Your task to perform on an android device: turn off location Image 0: 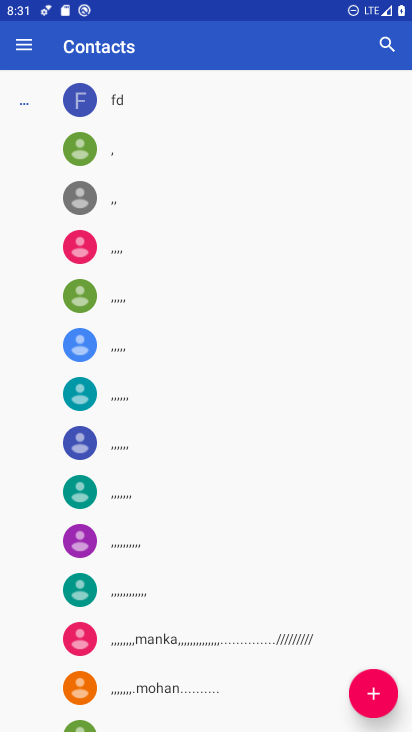
Step 0: press home button
Your task to perform on an android device: turn off location Image 1: 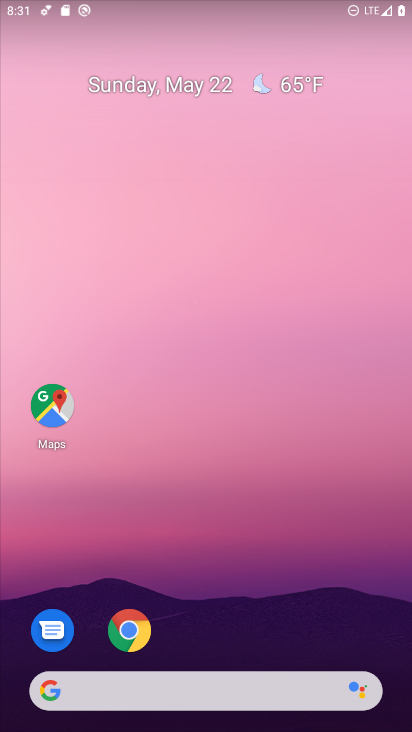
Step 1: drag from (137, 701) to (316, 153)
Your task to perform on an android device: turn off location Image 2: 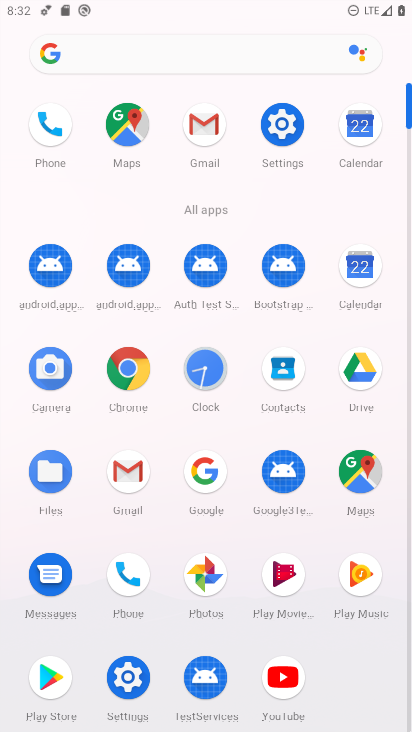
Step 2: click (288, 134)
Your task to perform on an android device: turn off location Image 3: 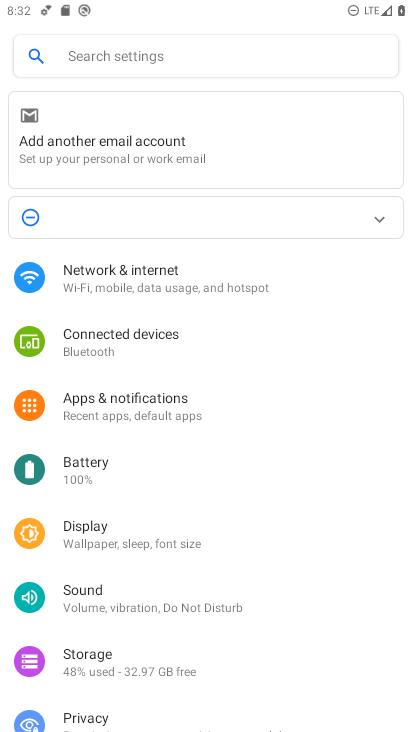
Step 3: drag from (242, 585) to (339, 253)
Your task to perform on an android device: turn off location Image 4: 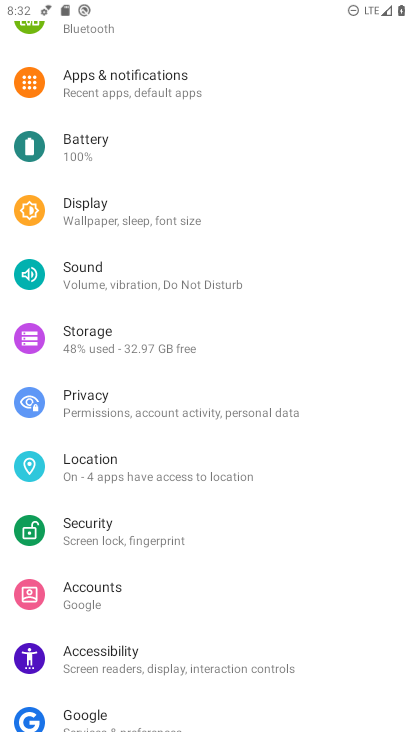
Step 4: click (156, 467)
Your task to perform on an android device: turn off location Image 5: 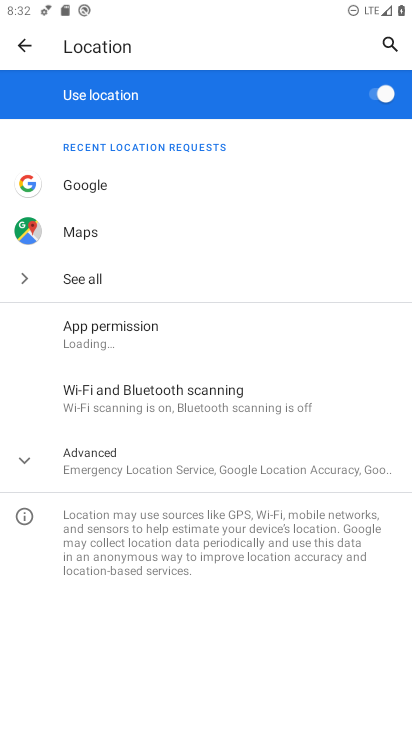
Step 5: click (372, 93)
Your task to perform on an android device: turn off location Image 6: 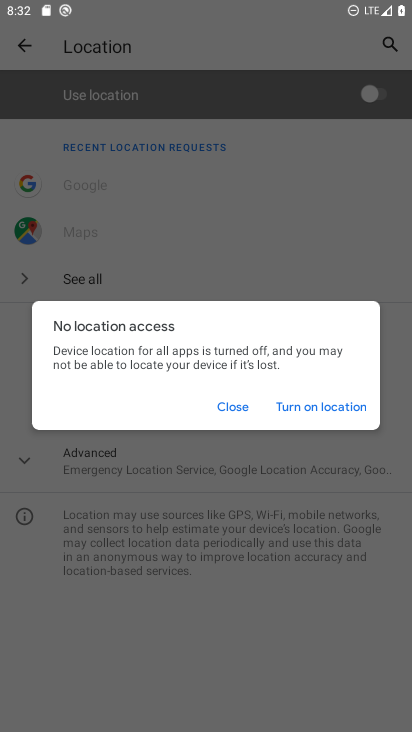
Step 6: click (240, 404)
Your task to perform on an android device: turn off location Image 7: 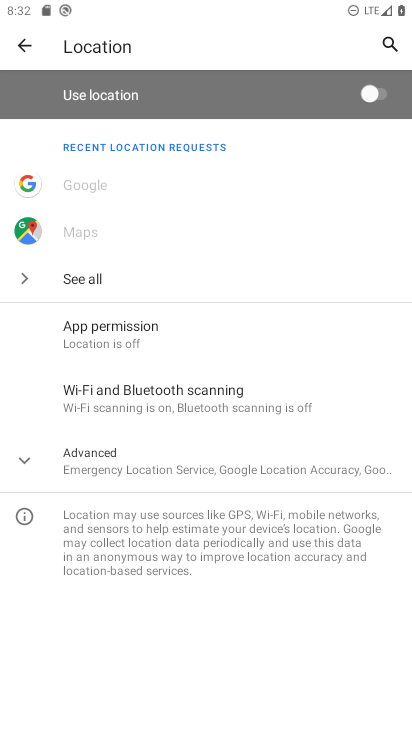
Step 7: task complete